Your task to perform on an android device: turn on data saver in the chrome app Image 0: 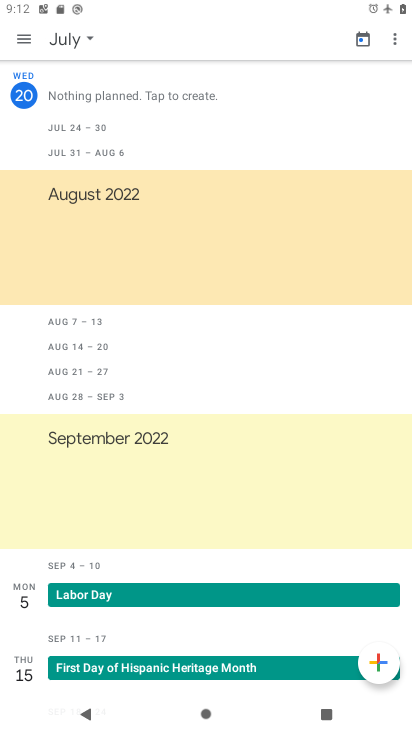
Step 0: press home button
Your task to perform on an android device: turn on data saver in the chrome app Image 1: 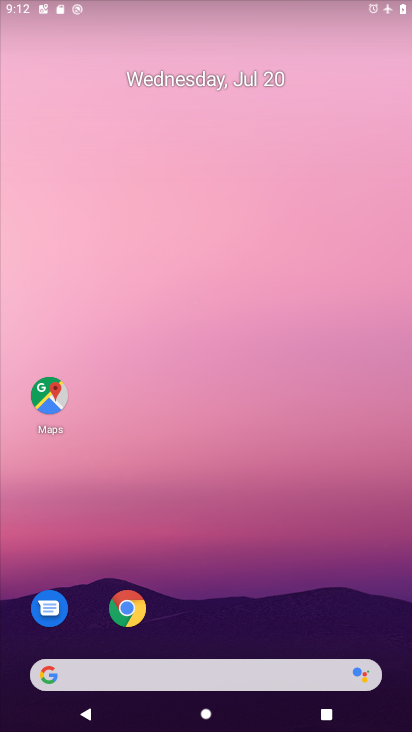
Step 1: drag from (239, 575) to (233, 34)
Your task to perform on an android device: turn on data saver in the chrome app Image 2: 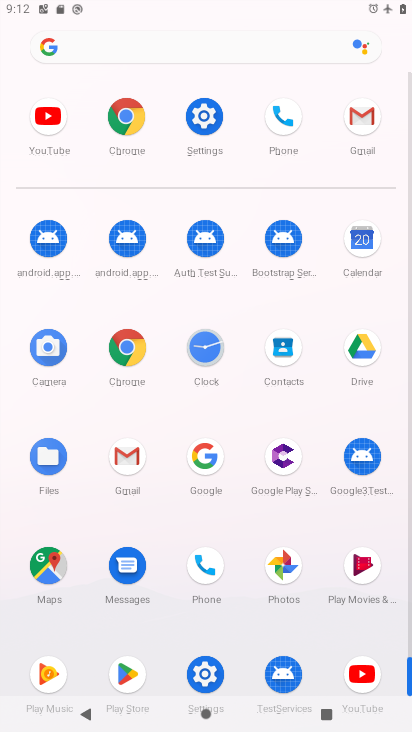
Step 2: click (117, 101)
Your task to perform on an android device: turn on data saver in the chrome app Image 3: 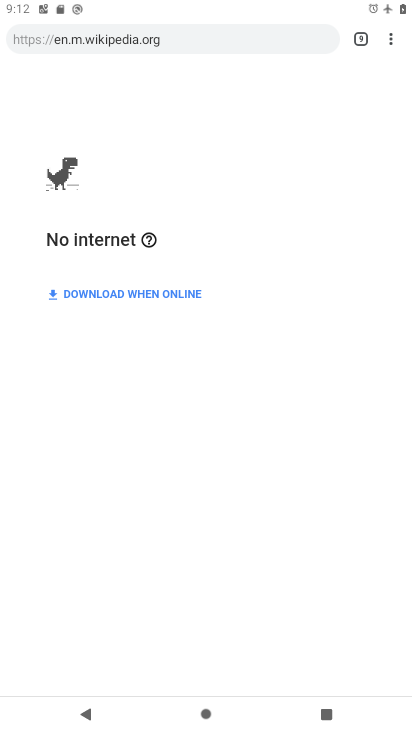
Step 3: click (394, 34)
Your task to perform on an android device: turn on data saver in the chrome app Image 4: 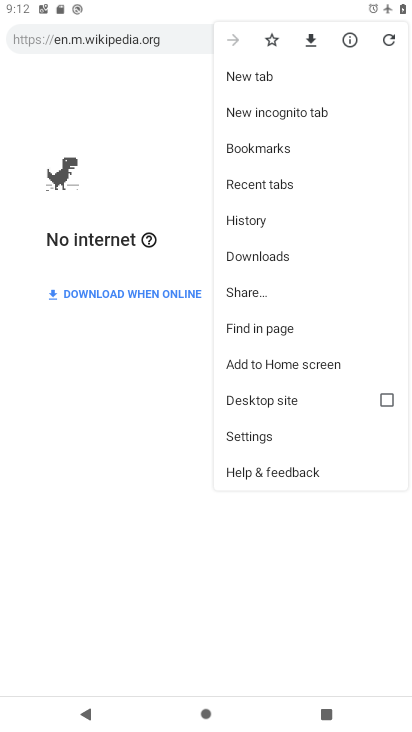
Step 4: click (272, 445)
Your task to perform on an android device: turn on data saver in the chrome app Image 5: 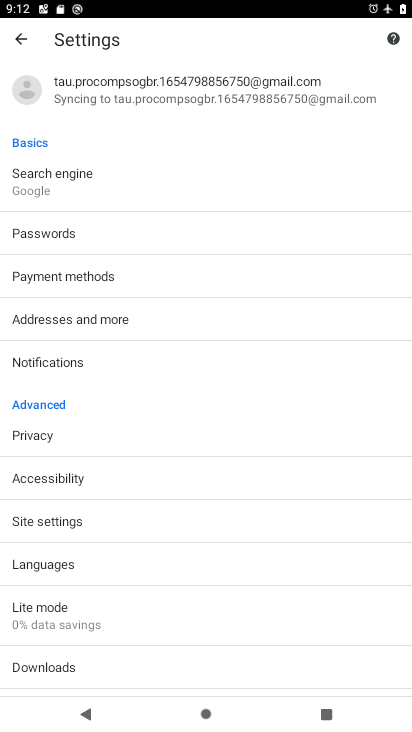
Step 5: click (37, 613)
Your task to perform on an android device: turn on data saver in the chrome app Image 6: 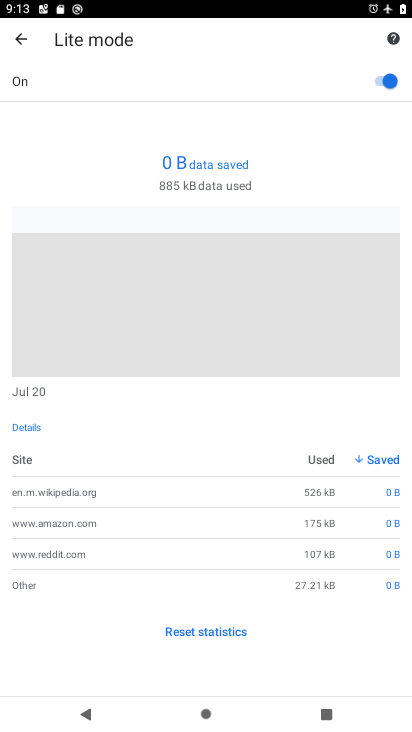
Step 6: task complete